Your task to perform on an android device: turn on notifications settings in the gmail app Image 0: 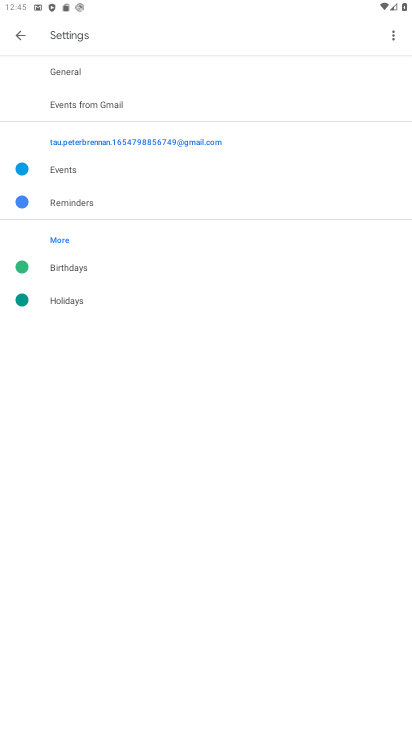
Step 0: press home button
Your task to perform on an android device: turn on notifications settings in the gmail app Image 1: 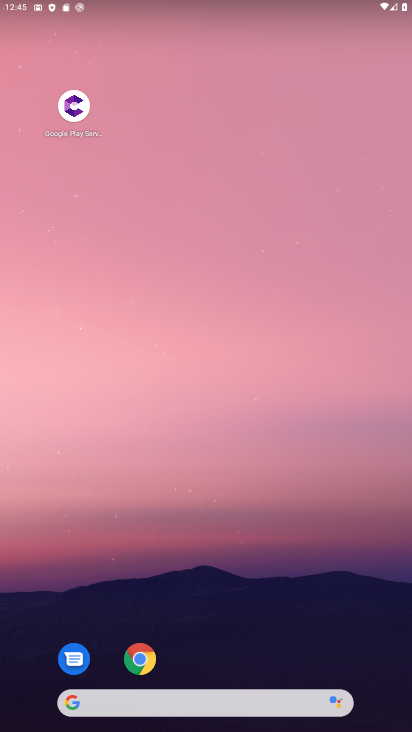
Step 1: drag from (204, 668) to (177, 4)
Your task to perform on an android device: turn on notifications settings in the gmail app Image 2: 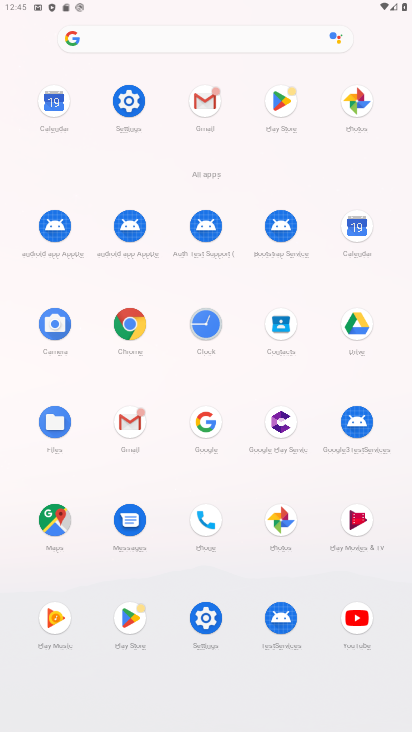
Step 2: click (137, 426)
Your task to perform on an android device: turn on notifications settings in the gmail app Image 3: 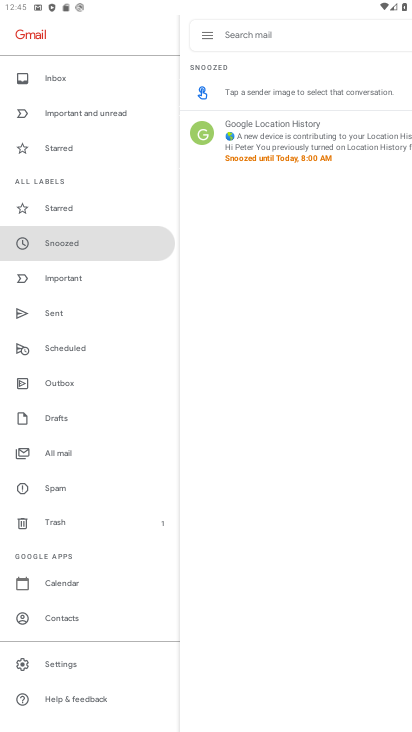
Step 3: click (77, 652)
Your task to perform on an android device: turn on notifications settings in the gmail app Image 4: 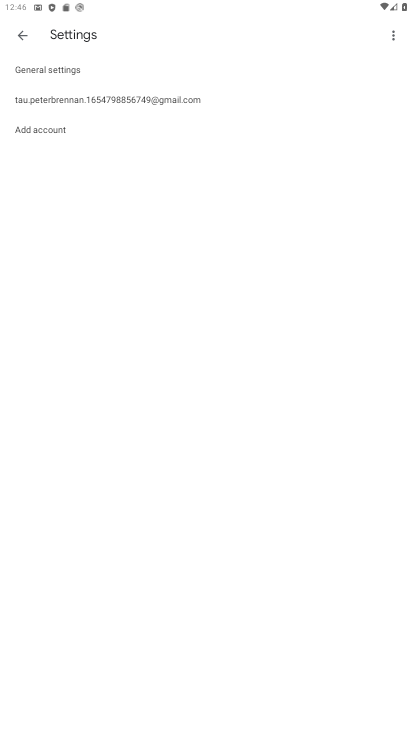
Step 4: click (64, 68)
Your task to perform on an android device: turn on notifications settings in the gmail app Image 5: 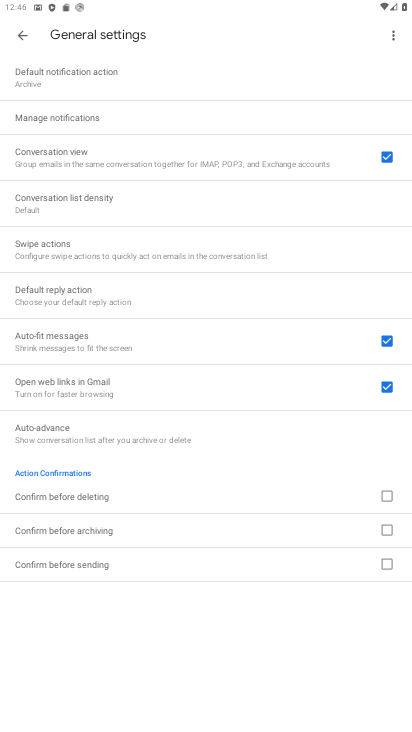
Step 5: click (92, 118)
Your task to perform on an android device: turn on notifications settings in the gmail app Image 6: 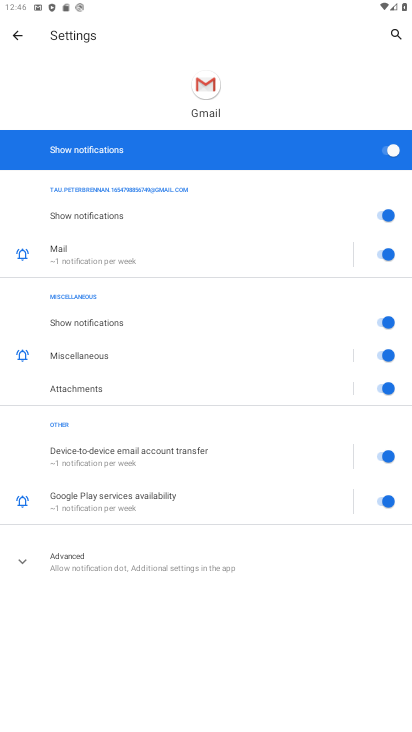
Step 6: task complete